Your task to perform on an android device: remove spam from my inbox in the gmail app Image 0: 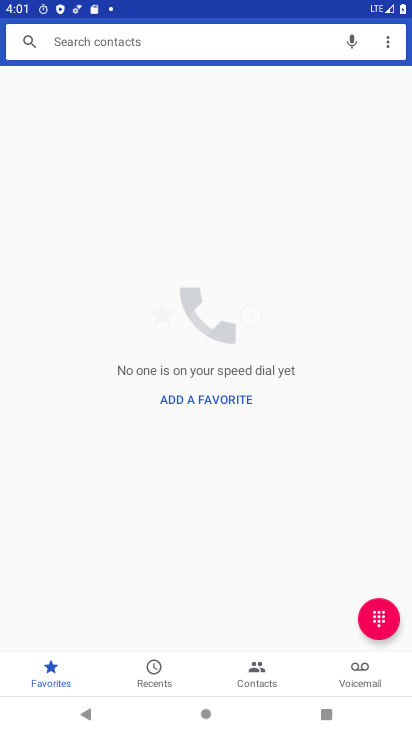
Step 0: press home button
Your task to perform on an android device: remove spam from my inbox in the gmail app Image 1: 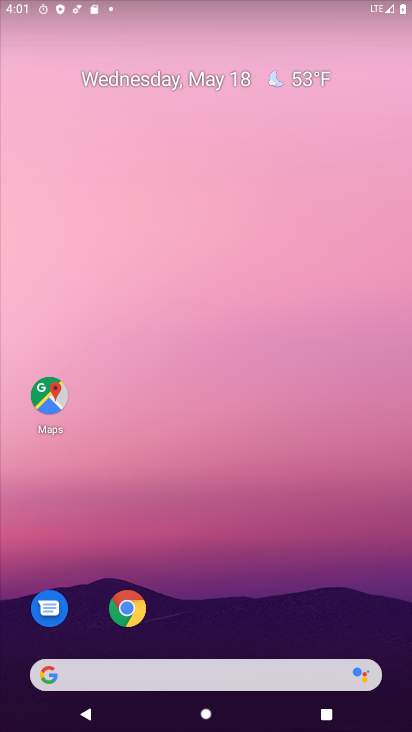
Step 1: drag from (206, 684) to (318, 10)
Your task to perform on an android device: remove spam from my inbox in the gmail app Image 2: 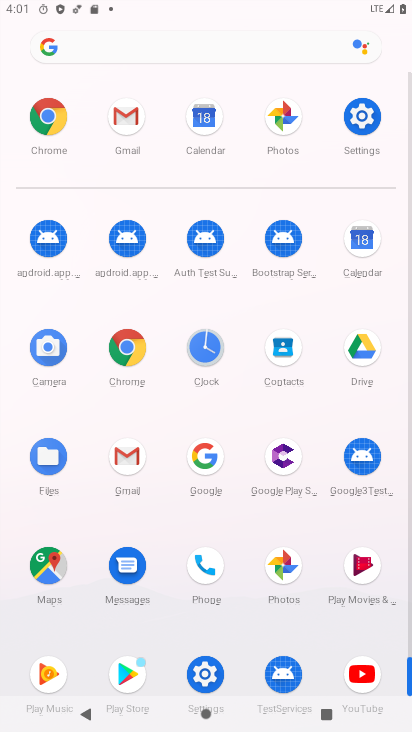
Step 2: click (122, 461)
Your task to perform on an android device: remove spam from my inbox in the gmail app Image 3: 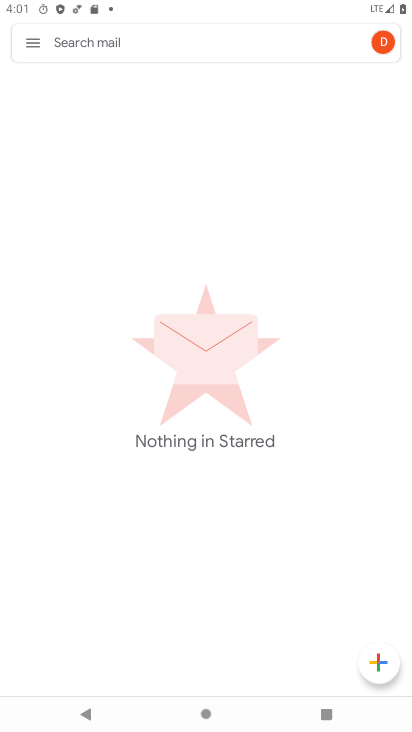
Step 3: click (33, 46)
Your task to perform on an android device: remove spam from my inbox in the gmail app Image 4: 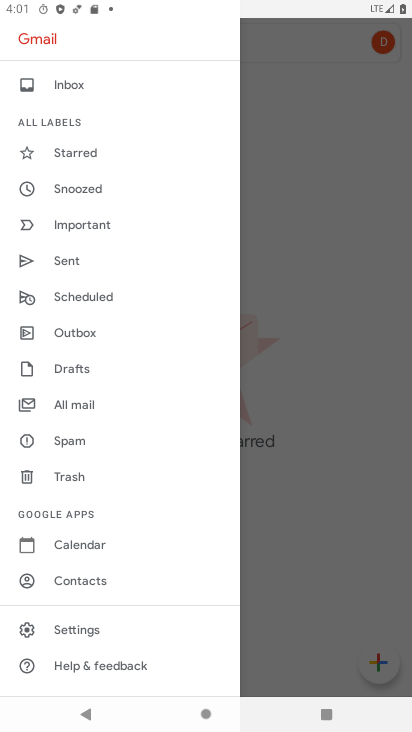
Step 4: click (95, 445)
Your task to perform on an android device: remove spam from my inbox in the gmail app Image 5: 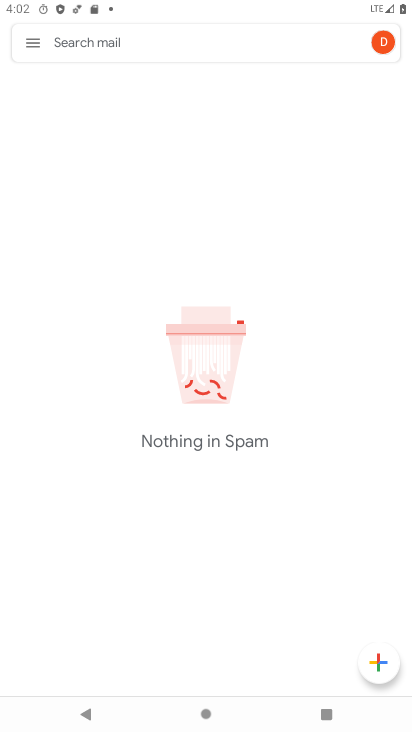
Step 5: task complete